Your task to perform on an android device: Open maps Image 0: 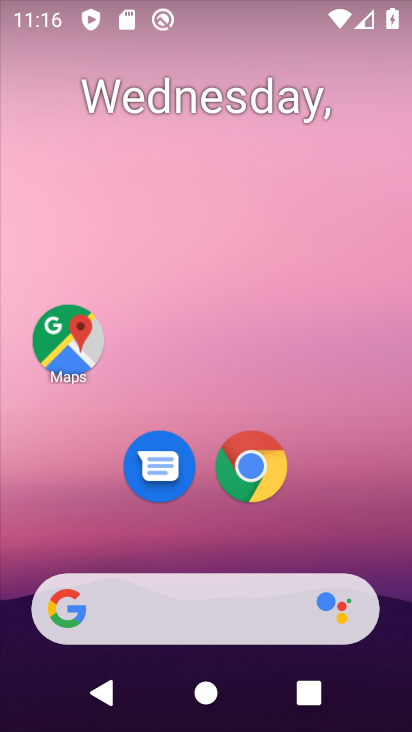
Step 0: drag from (269, 696) to (250, 272)
Your task to perform on an android device: Open maps Image 1: 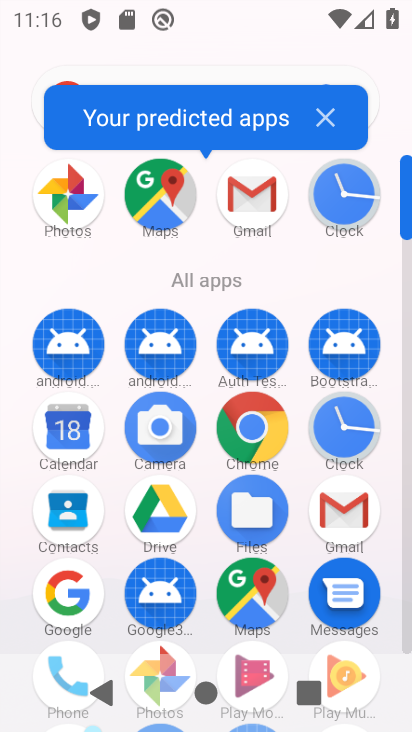
Step 1: click (259, 598)
Your task to perform on an android device: Open maps Image 2: 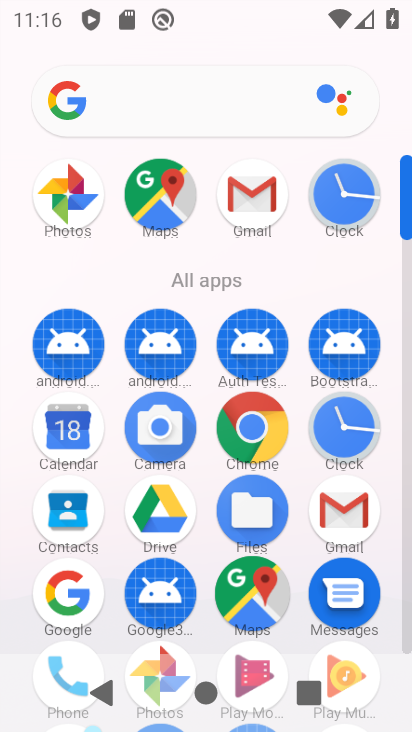
Step 2: click (257, 598)
Your task to perform on an android device: Open maps Image 3: 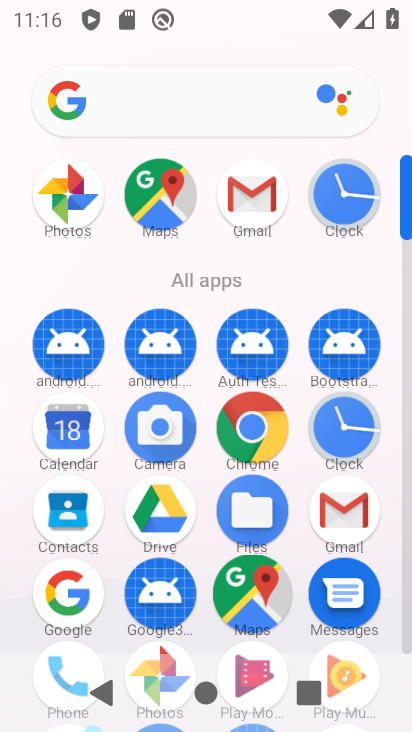
Step 3: click (257, 600)
Your task to perform on an android device: Open maps Image 4: 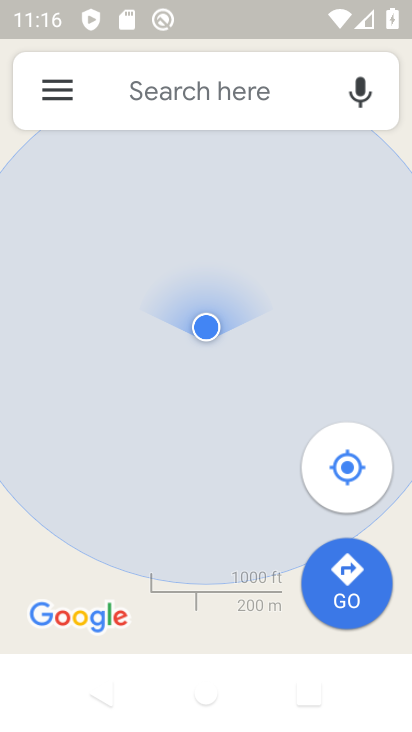
Step 4: click (136, 102)
Your task to perform on an android device: Open maps Image 5: 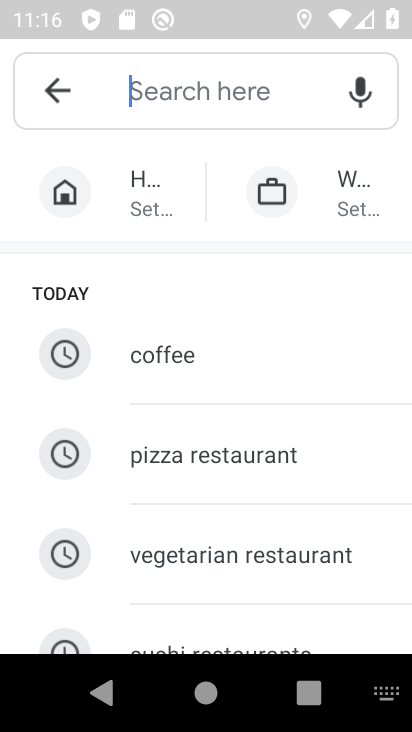
Step 5: task complete